Your task to perform on an android device: turn on showing notifications on the lock screen Image 0: 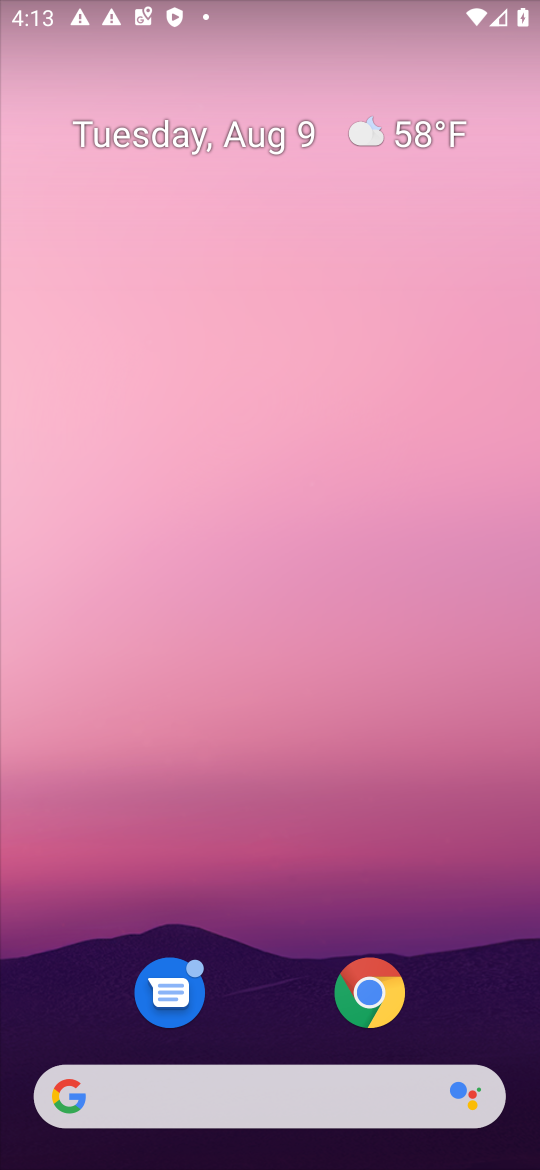
Step 0: drag from (205, 1073) to (324, 140)
Your task to perform on an android device: turn on showing notifications on the lock screen Image 1: 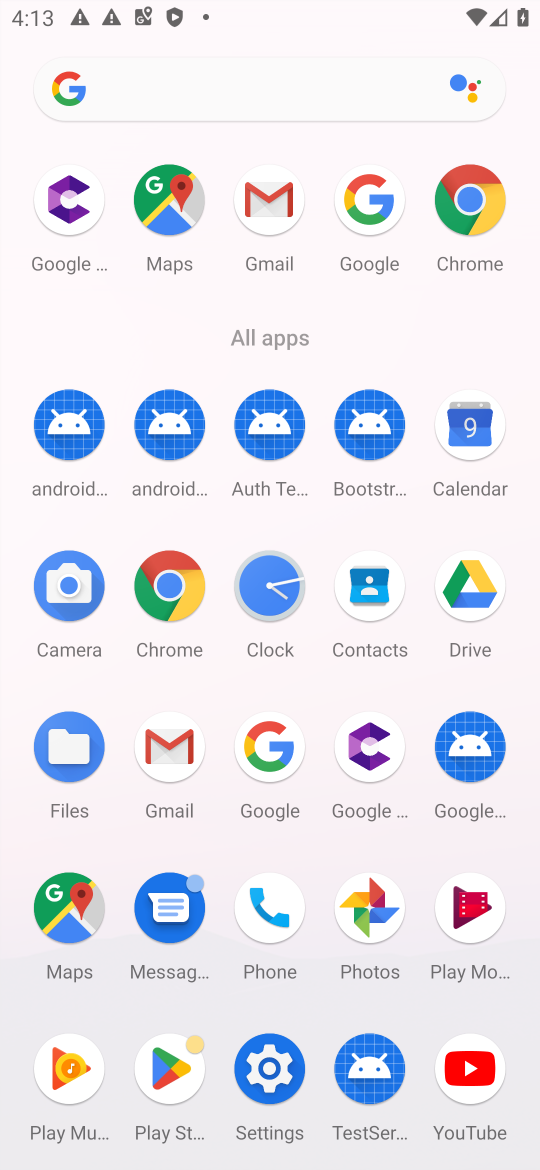
Step 1: click (258, 1074)
Your task to perform on an android device: turn on showing notifications on the lock screen Image 2: 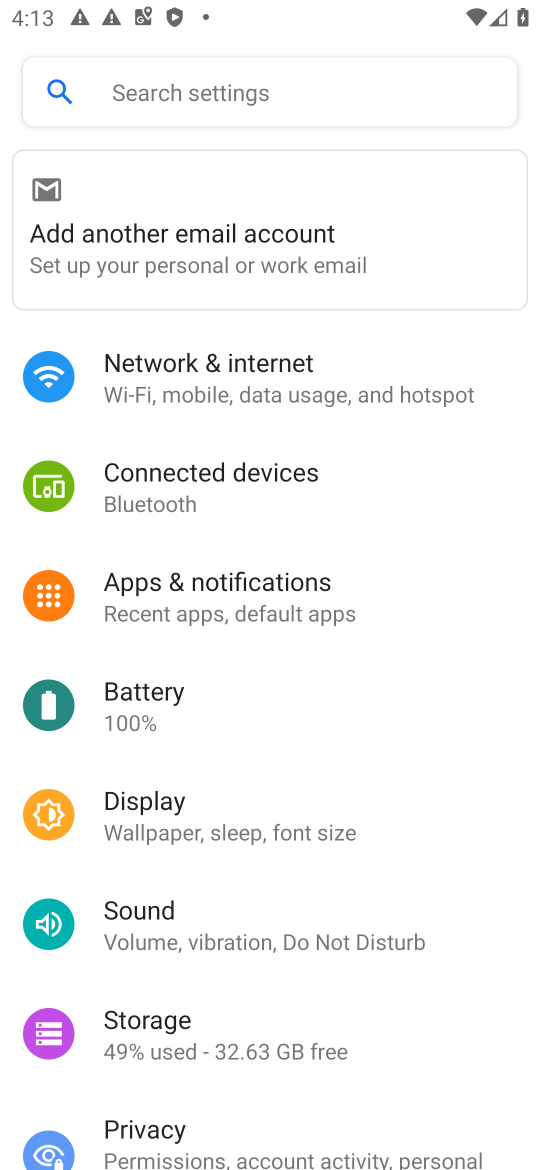
Step 2: click (268, 577)
Your task to perform on an android device: turn on showing notifications on the lock screen Image 3: 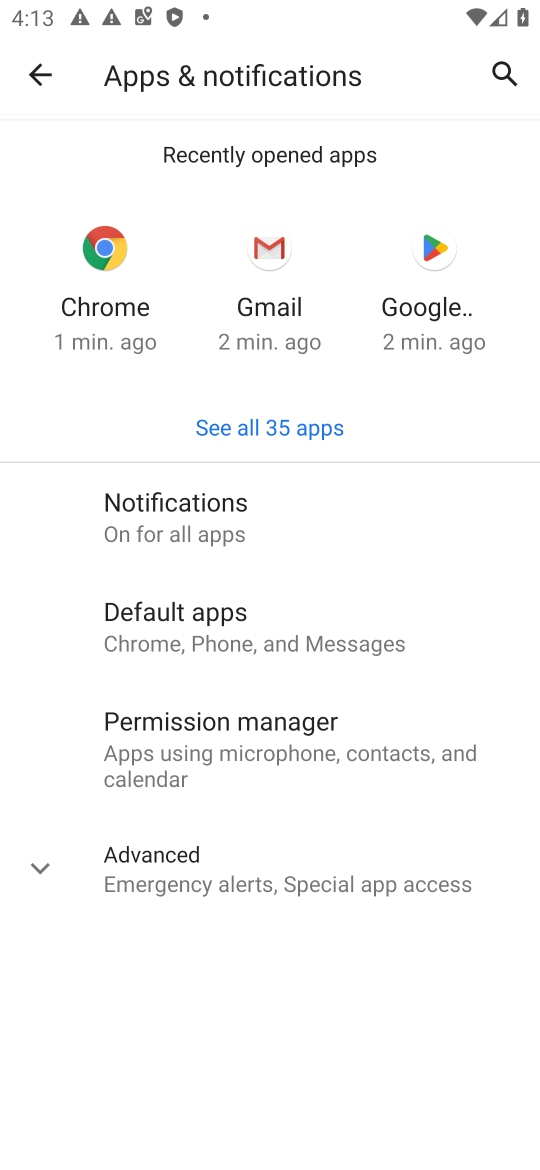
Step 3: click (244, 523)
Your task to perform on an android device: turn on showing notifications on the lock screen Image 4: 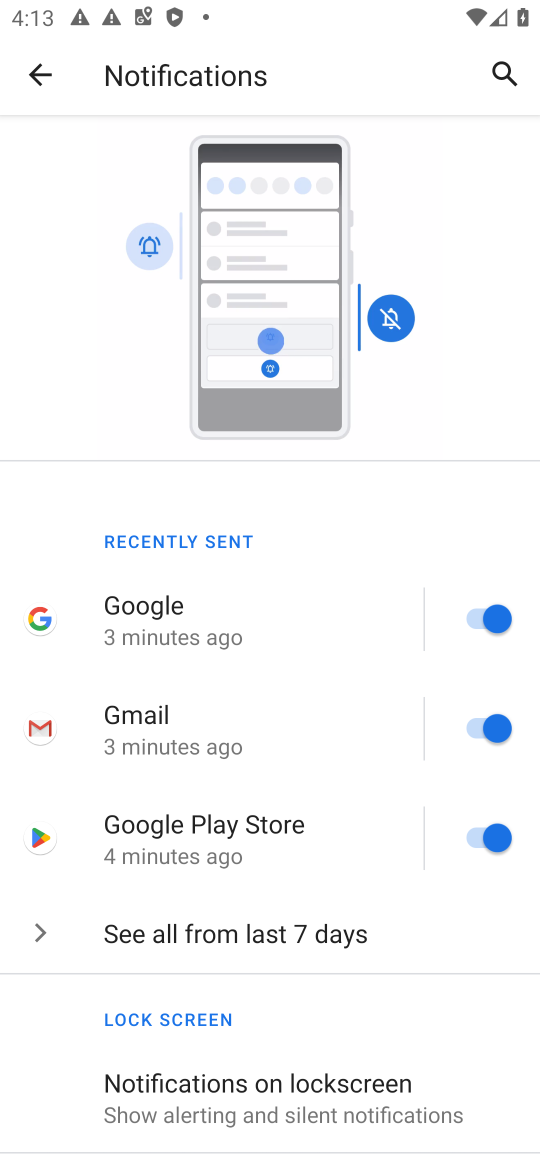
Step 4: click (277, 1092)
Your task to perform on an android device: turn on showing notifications on the lock screen Image 5: 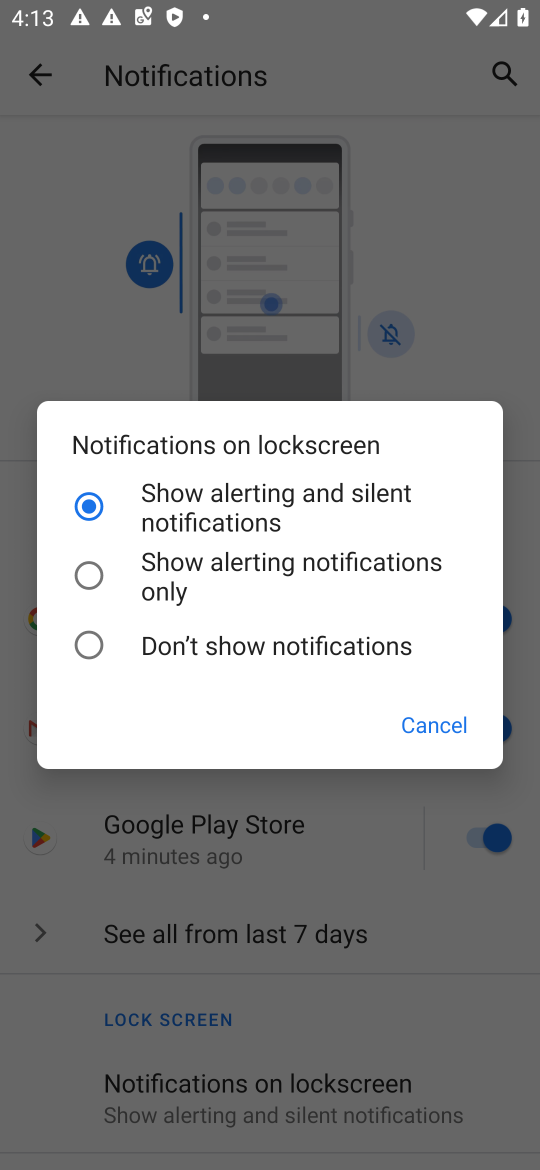
Step 5: task complete